Your task to perform on an android device: Show me the alarms in the clock app Image 0: 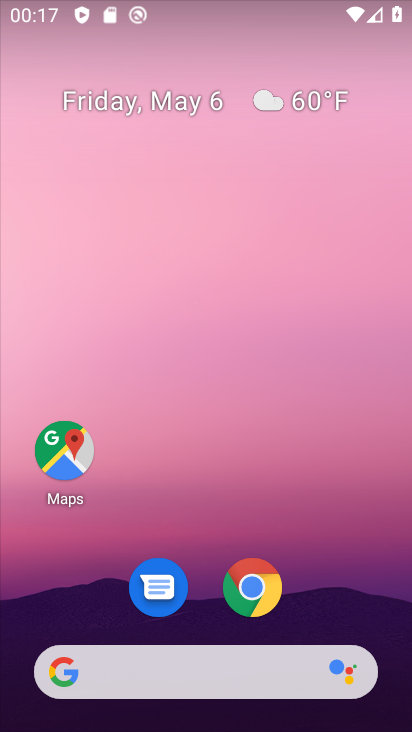
Step 0: drag from (364, 537) to (379, 324)
Your task to perform on an android device: Show me the alarms in the clock app Image 1: 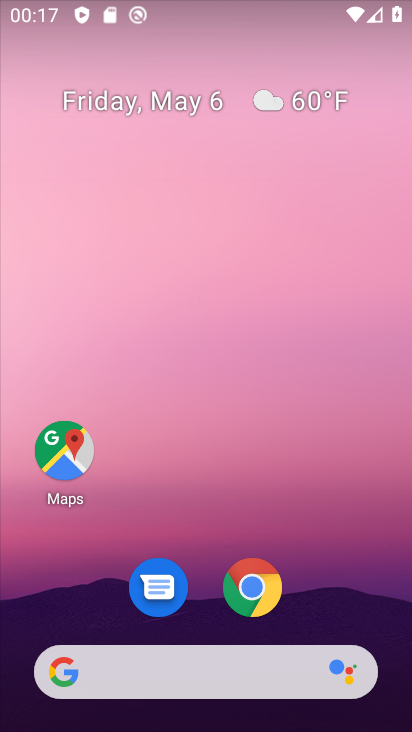
Step 1: drag from (386, 634) to (376, 282)
Your task to perform on an android device: Show me the alarms in the clock app Image 2: 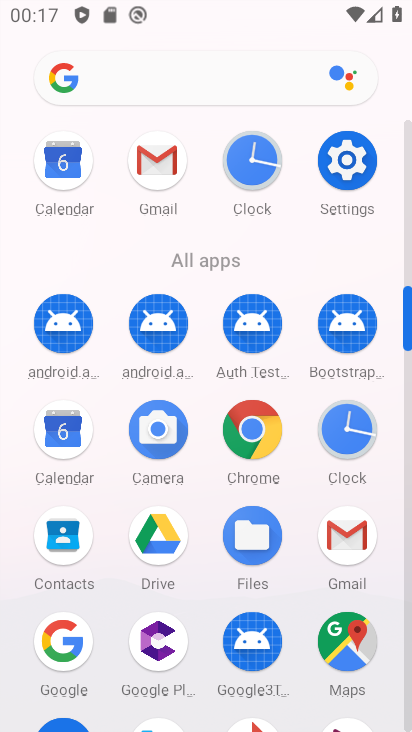
Step 2: click (348, 437)
Your task to perform on an android device: Show me the alarms in the clock app Image 3: 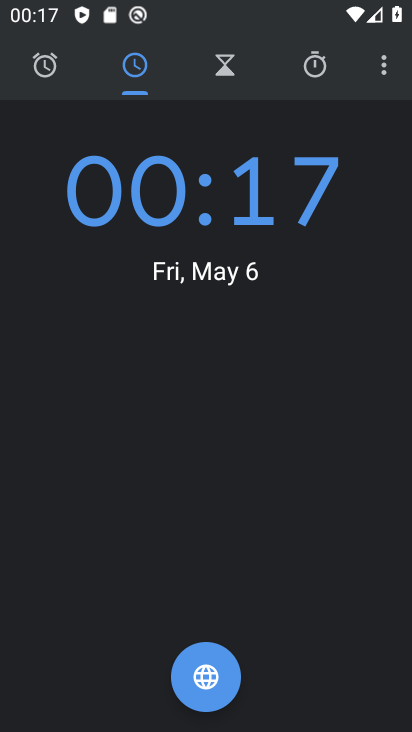
Step 3: click (387, 65)
Your task to perform on an android device: Show me the alarms in the clock app Image 4: 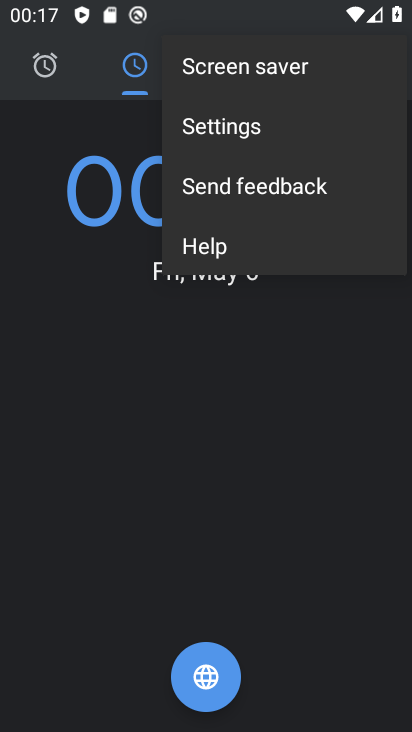
Step 4: click (164, 122)
Your task to perform on an android device: Show me the alarms in the clock app Image 5: 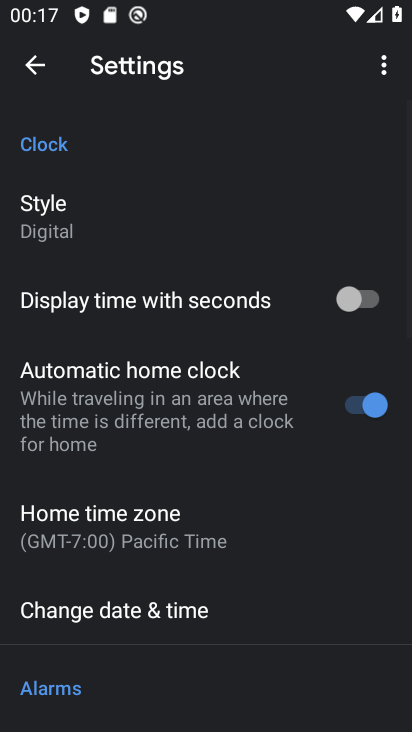
Step 5: click (40, 63)
Your task to perform on an android device: Show me the alarms in the clock app Image 6: 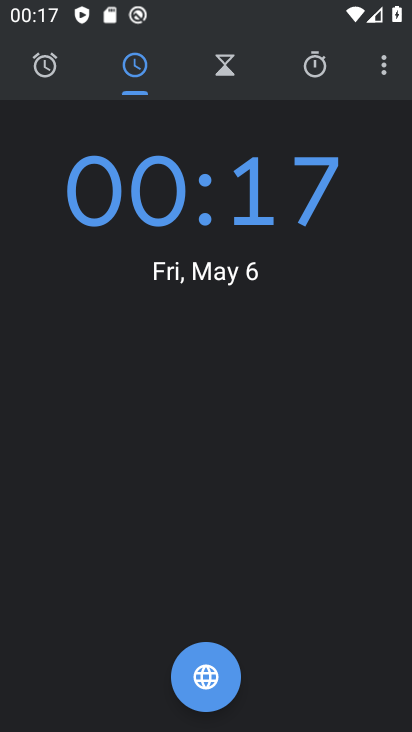
Step 6: click (36, 68)
Your task to perform on an android device: Show me the alarms in the clock app Image 7: 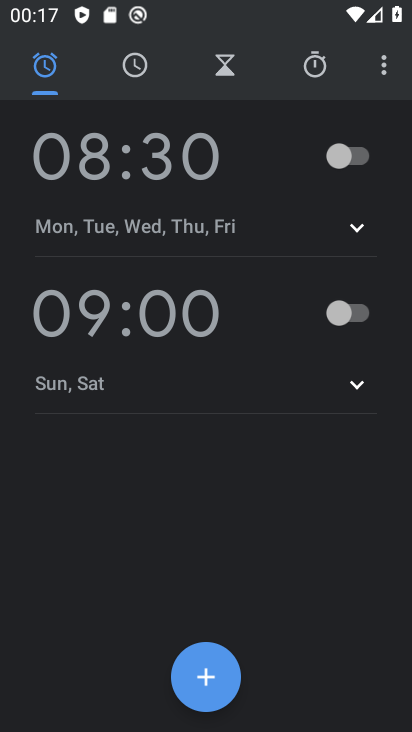
Step 7: task complete